Your task to perform on an android device: Open network settings Image 0: 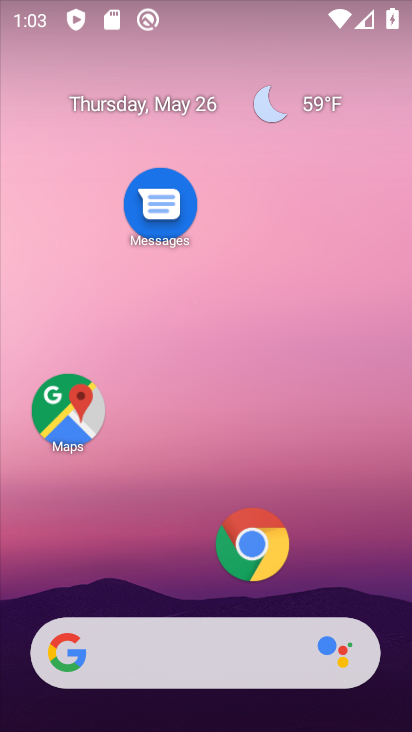
Step 0: drag from (222, 17) to (217, 616)
Your task to perform on an android device: Open network settings Image 1: 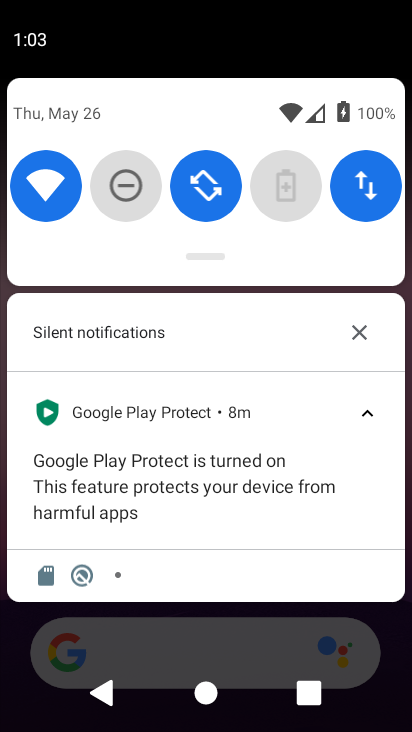
Step 1: click (371, 158)
Your task to perform on an android device: Open network settings Image 2: 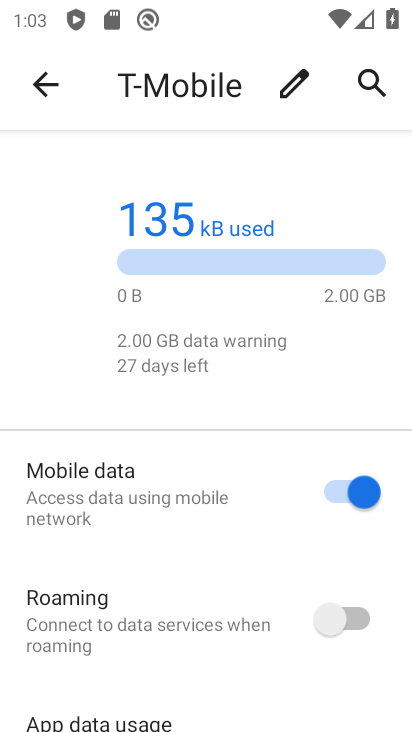
Step 2: task complete